Your task to perform on an android device: Open calendar and show me the second week of next month Image 0: 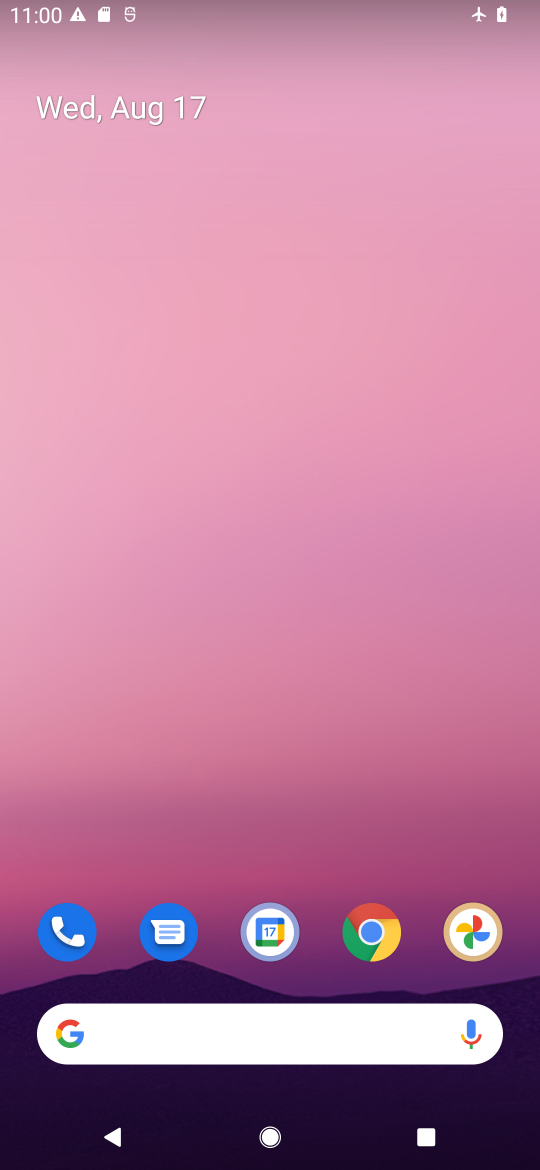
Step 0: click (276, 690)
Your task to perform on an android device: Open calendar and show me the second week of next month Image 1: 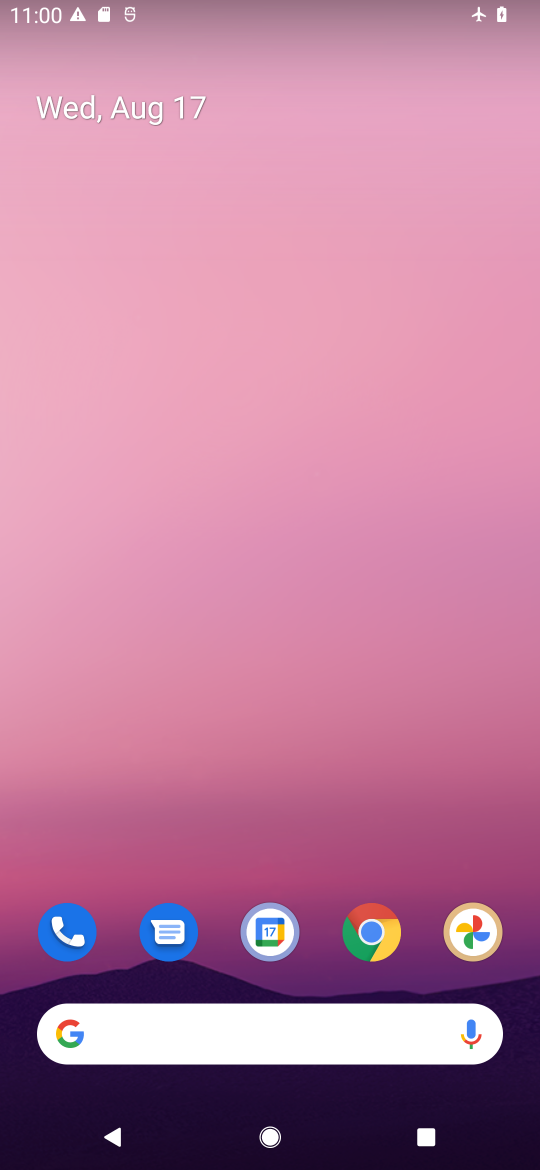
Step 1: click (271, 928)
Your task to perform on an android device: Open calendar and show me the second week of next month Image 2: 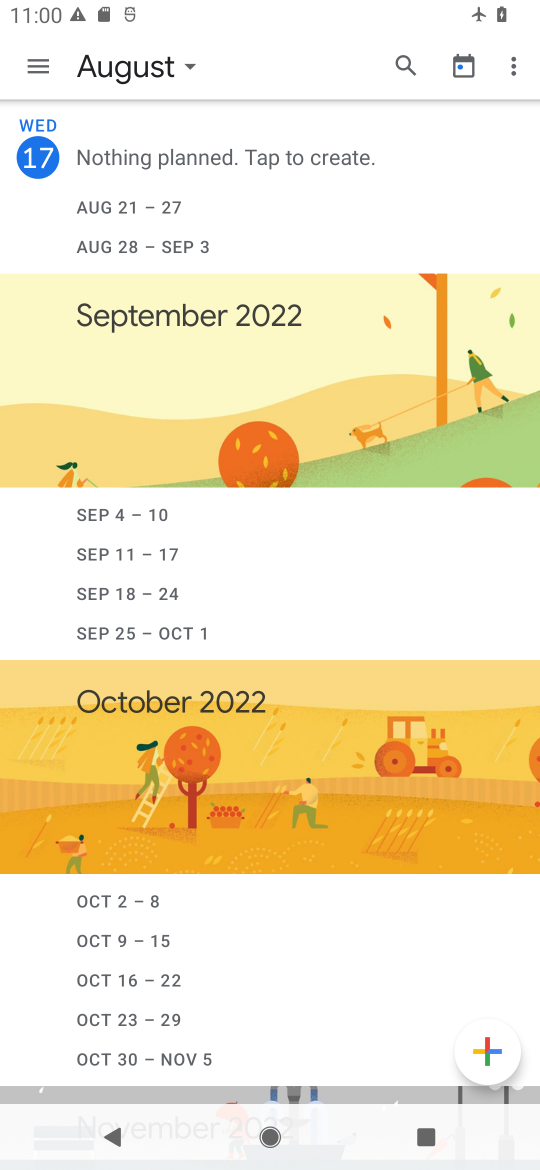
Step 2: click (176, 62)
Your task to perform on an android device: Open calendar and show me the second week of next month Image 3: 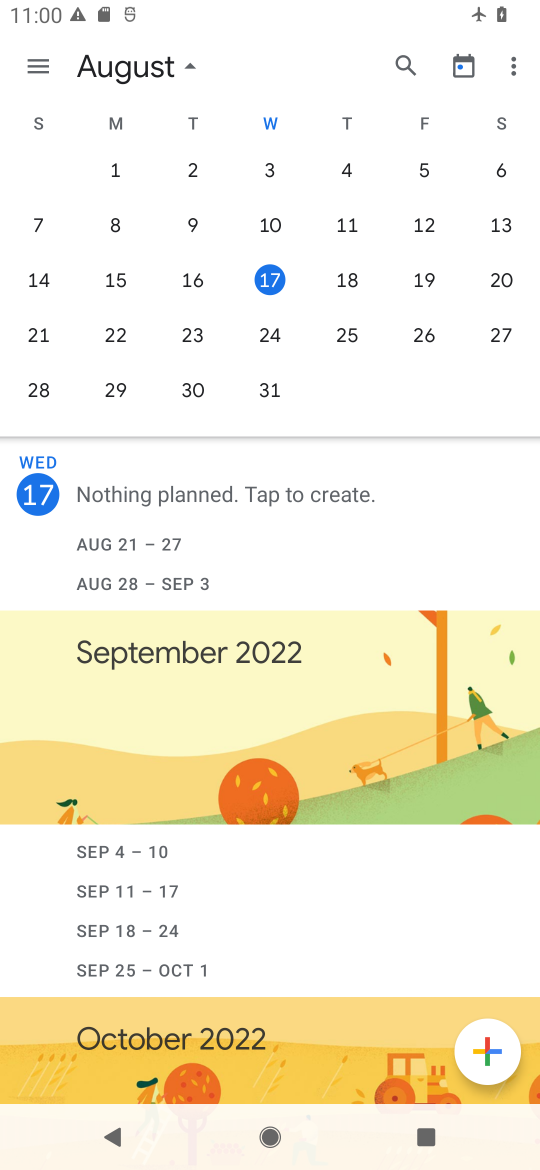
Step 3: drag from (445, 201) to (75, 208)
Your task to perform on an android device: Open calendar and show me the second week of next month Image 4: 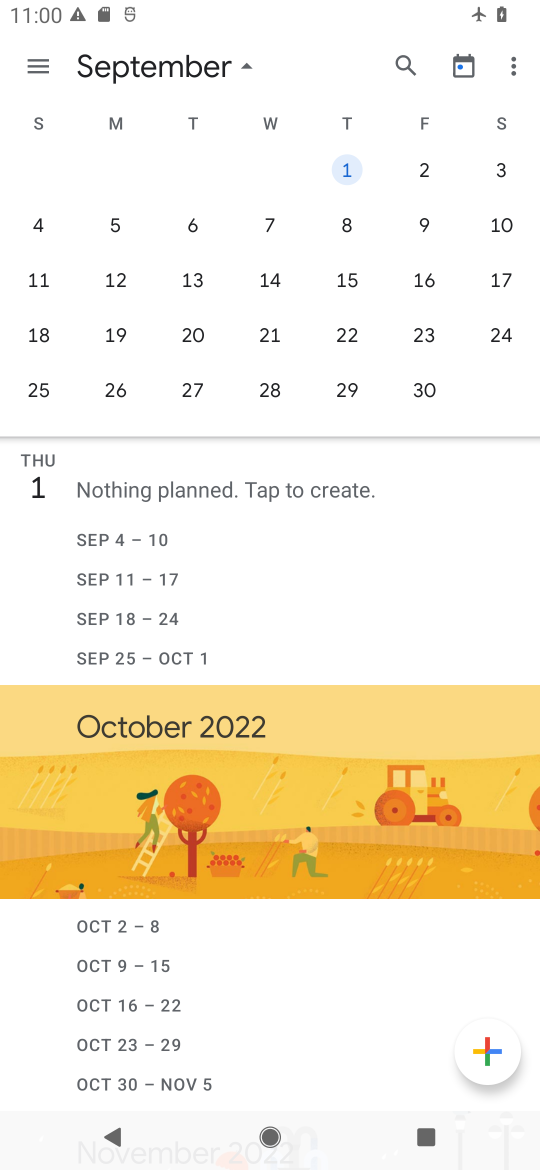
Step 4: click (47, 229)
Your task to perform on an android device: Open calendar and show me the second week of next month Image 5: 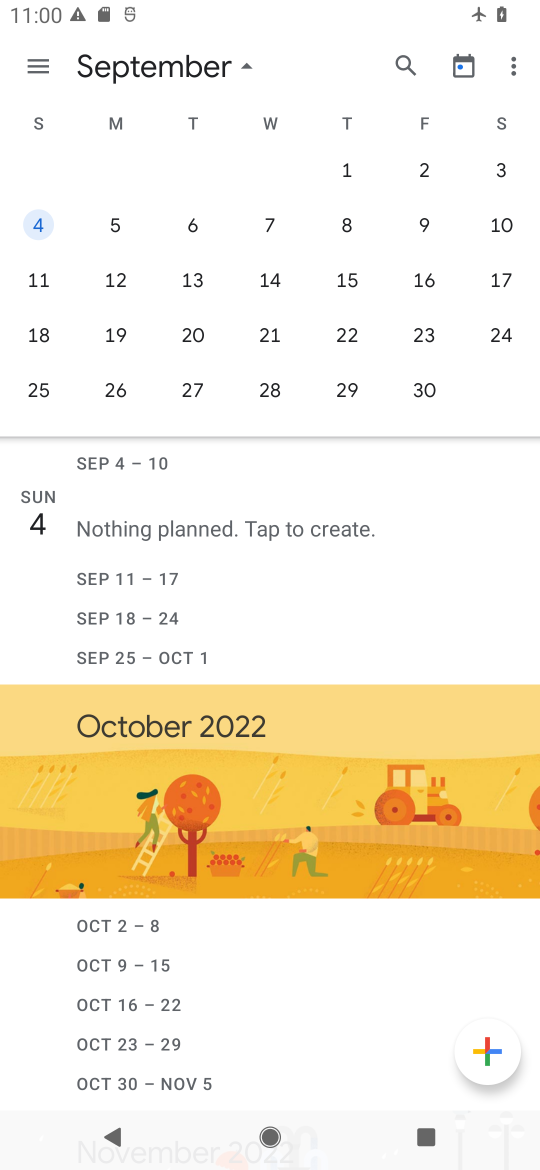
Step 5: task complete